Your task to perform on an android device: Show me productivity apps on the Play Store Image 0: 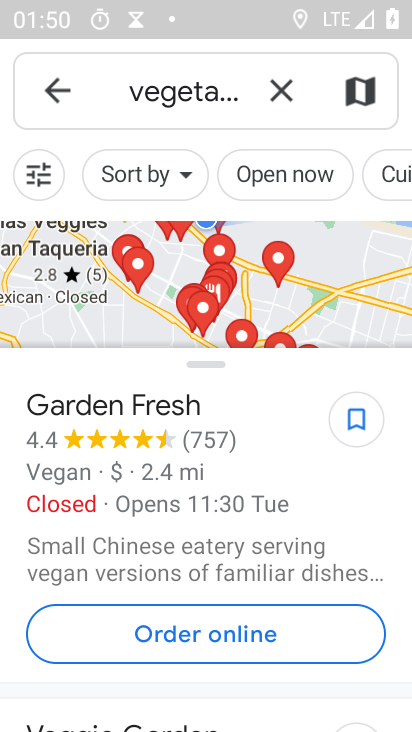
Step 0: press home button
Your task to perform on an android device: Show me productivity apps on the Play Store Image 1: 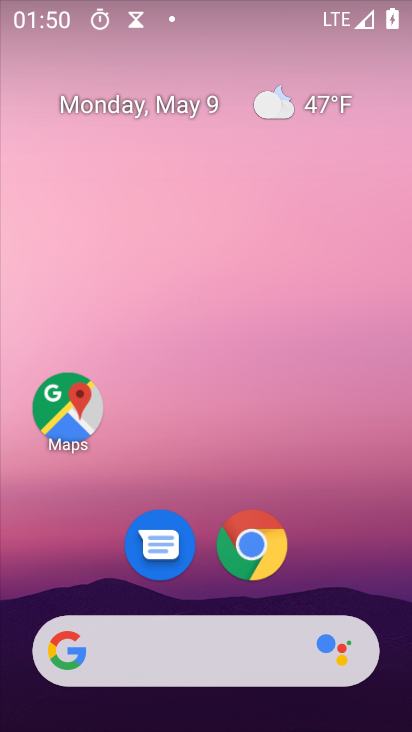
Step 1: drag from (309, 630) to (351, 10)
Your task to perform on an android device: Show me productivity apps on the Play Store Image 2: 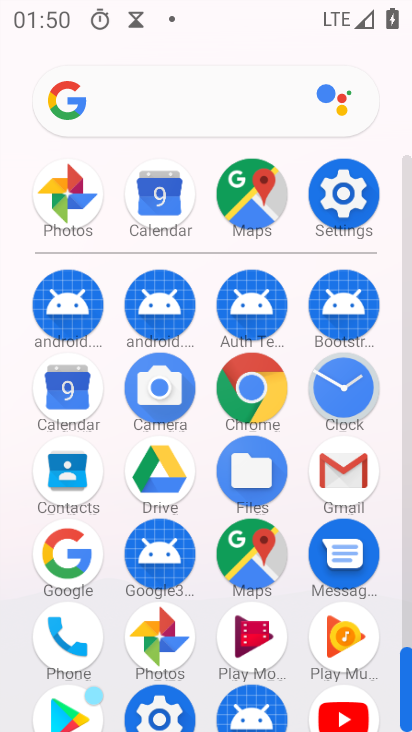
Step 2: drag from (306, 671) to (284, 206)
Your task to perform on an android device: Show me productivity apps on the Play Store Image 3: 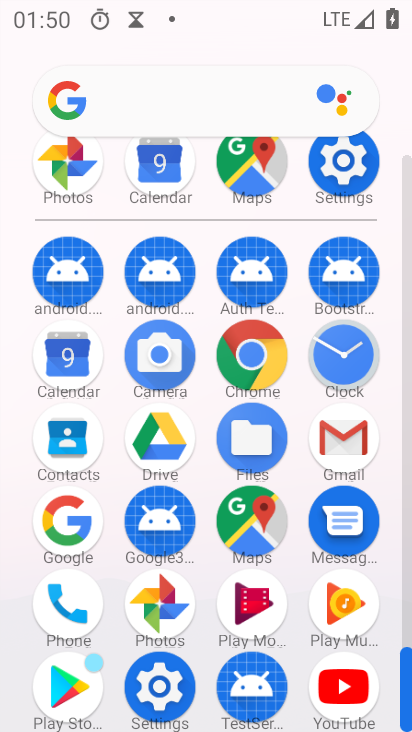
Step 3: click (74, 691)
Your task to perform on an android device: Show me productivity apps on the Play Store Image 4: 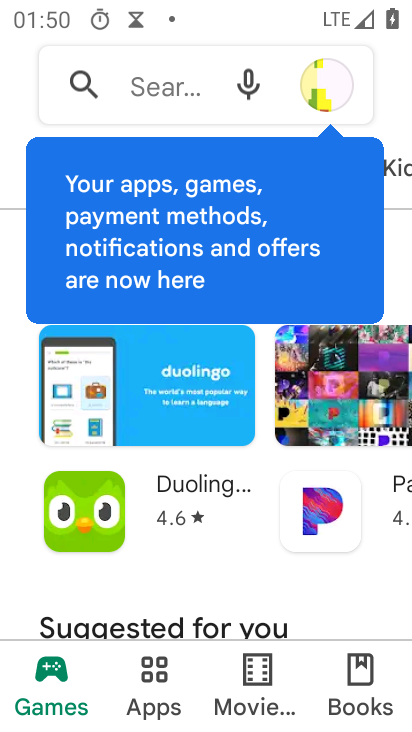
Step 4: drag from (229, 602) to (237, 96)
Your task to perform on an android device: Show me productivity apps on the Play Store Image 5: 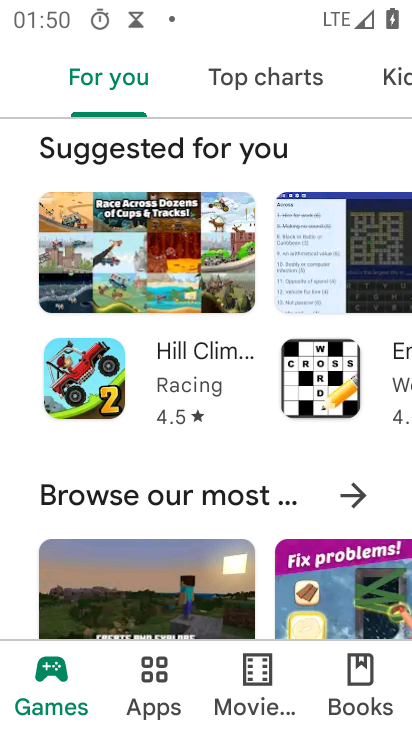
Step 5: drag from (258, 614) to (292, 171)
Your task to perform on an android device: Show me productivity apps on the Play Store Image 6: 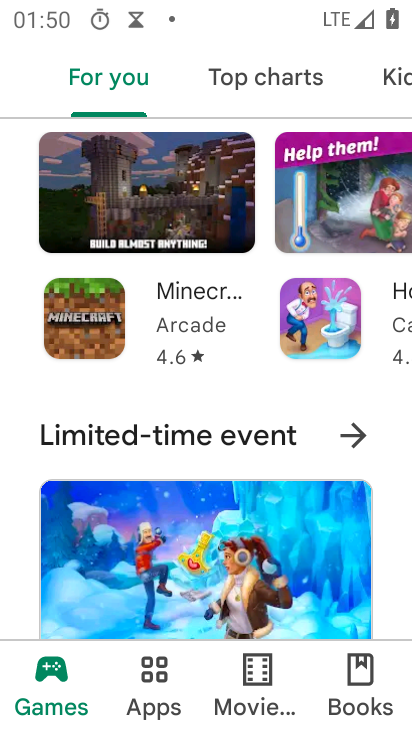
Step 6: drag from (315, 594) to (338, 130)
Your task to perform on an android device: Show me productivity apps on the Play Store Image 7: 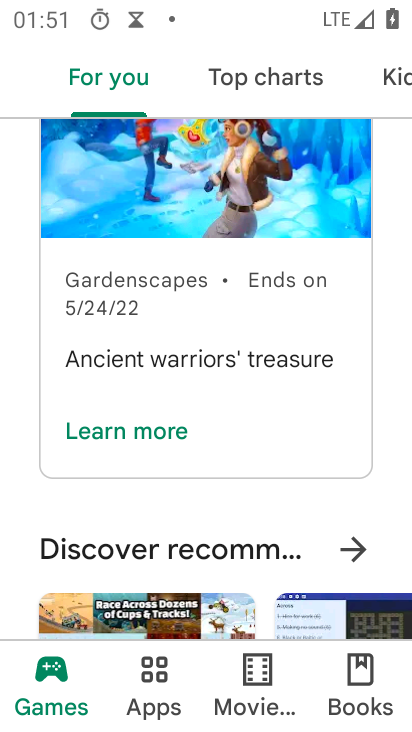
Step 7: drag from (303, 608) to (283, 99)
Your task to perform on an android device: Show me productivity apps on the Play Store Image 8: 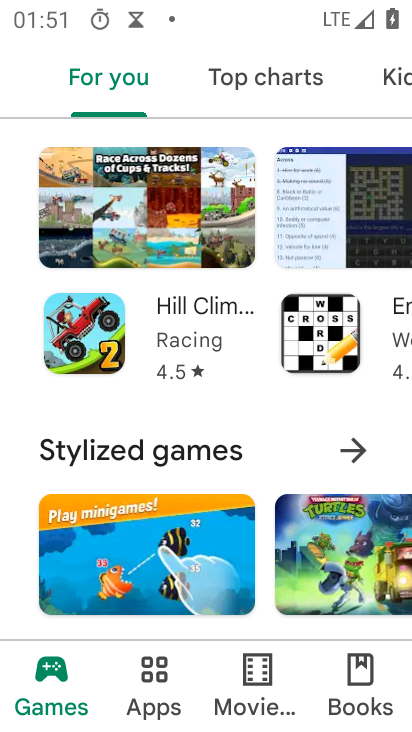
Step 8: drag from (262, 586) to (255, 63)
Your task to perform on an android device: Show me productivity apps on the Play Store Image 9: 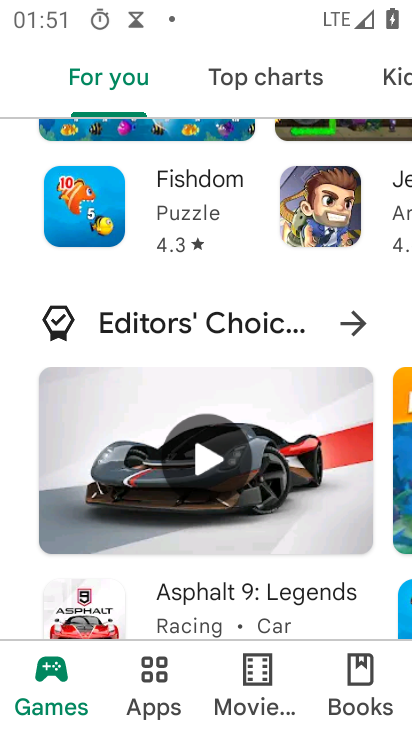
Step 9: drag from (350, 627) to (364, 125)
Your task to perform on an android device: Show me productivity apps on the Play Store Image 10: 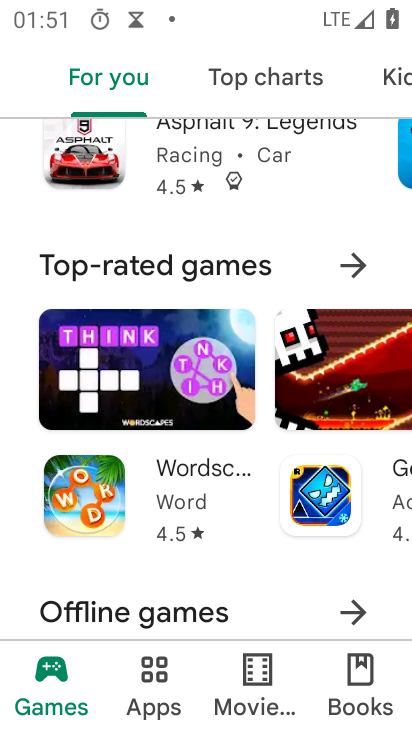
Step 10: drag from (300, 603) to (301, 48)
Your task to perform on an android device: Show me productivity apps on the Play Store Image 11: 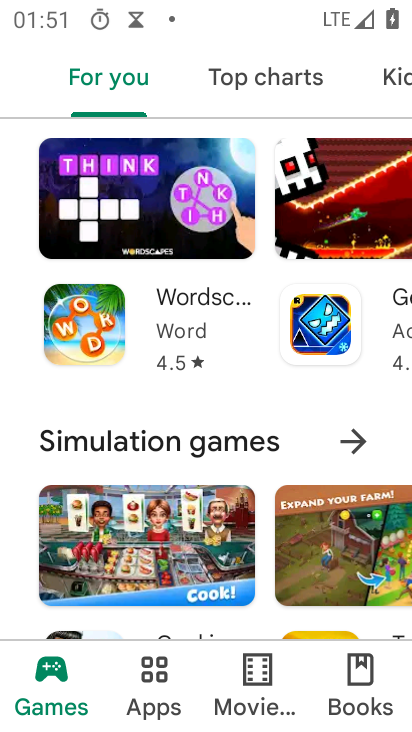
Step 11: drag from (259, 581) to (276, 102)
Your task to perform on an android device: Show me productivity apps on the Play Store Image 12: 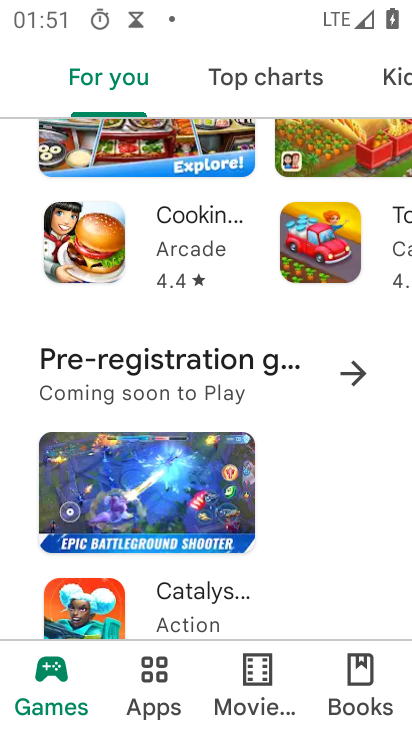
Step 12: drag from (297, 588) to (286, 264)
Your task to perform on an android device: Show me productivity apps on the Play Store Image 13: 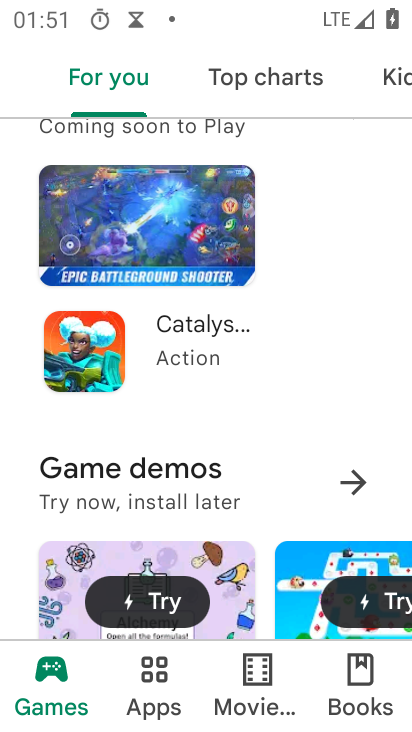
Step 13: click (157, 683)
Your task to perform on an android device: Show me productivity apps on the Play Store Image 14: 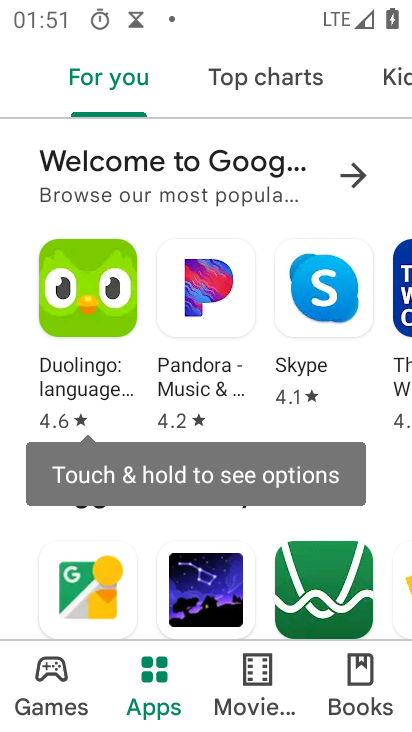
Step 14: task complete